Your task to perform on an android device: Open privacy settings Image 0: 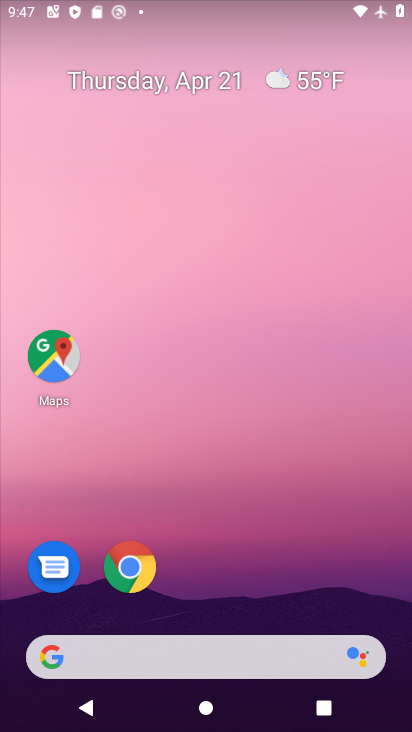
Step 0: drag from (385, 610) to (345, 12)
Your task to perform on an android device: Open privacy settings Image 1: 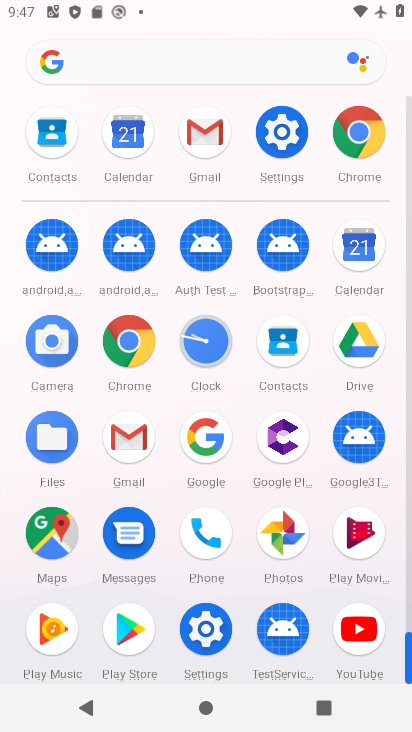
Step 1: click (208, 623)
Your task to perform on an android device: Open privacy settings Image 2: 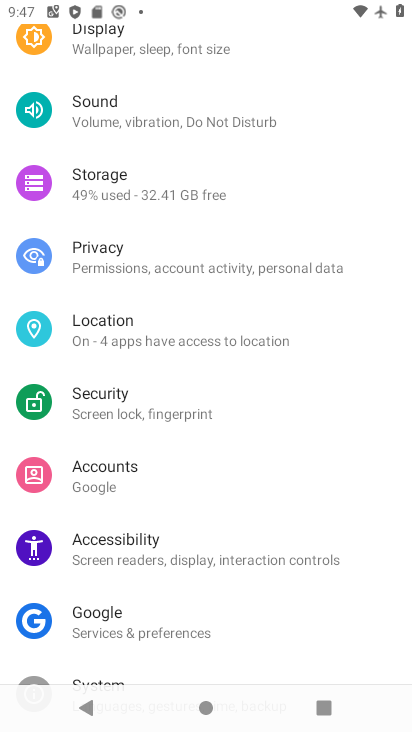
Step 2: click (89, 243)
Your task to perform on an android device: Open privacy settings Image 3: 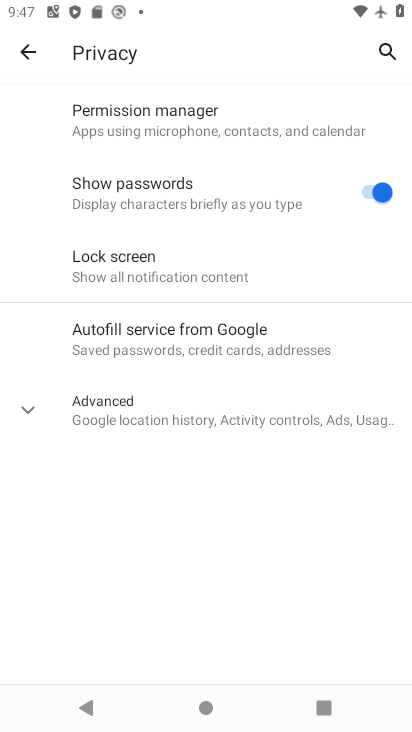
Step 3: click (29, 409)
Your task to perform on an android device: Open privacy settings Image 4: 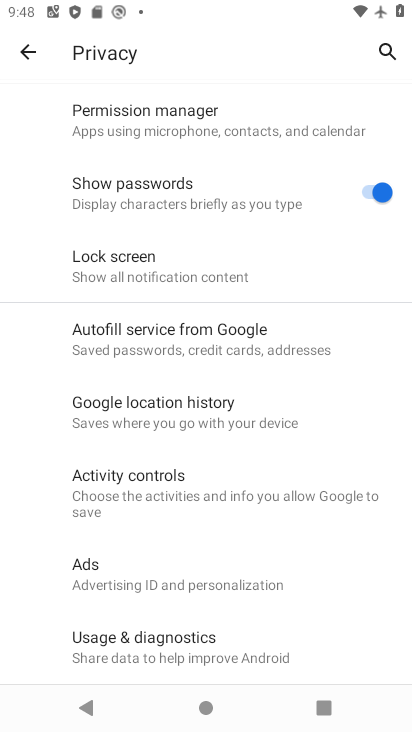
Step 4: task complete